Your task to perform on an android device: change timer sound Image 0: 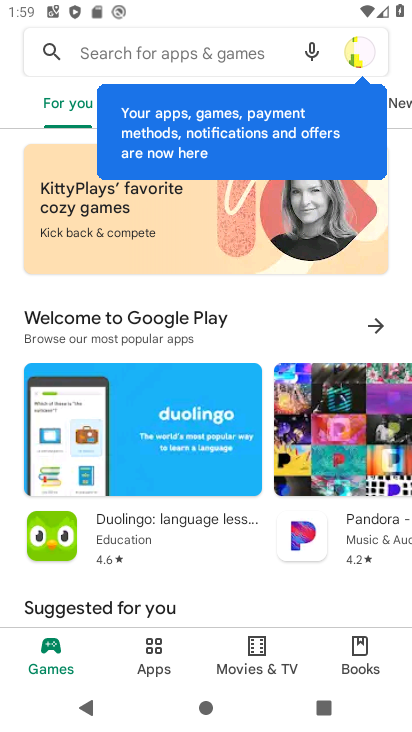
Step 0: press home button
Your task to perform on an android device: change timer sound Image 1: 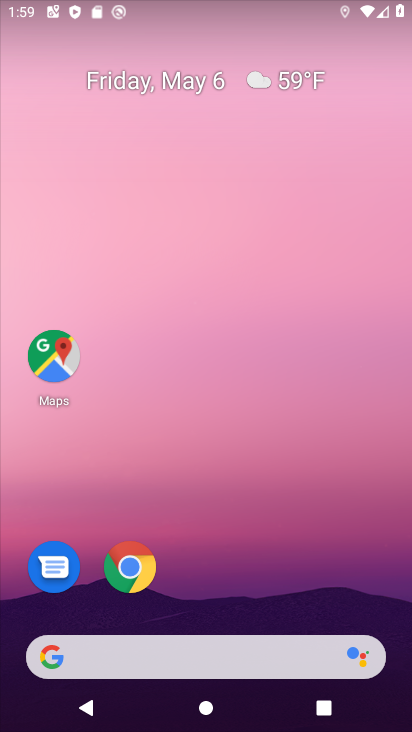
Step 1: drag from (383, 616) to (343, 78)
Your task to perform on an android device: change timer sound Image 2: 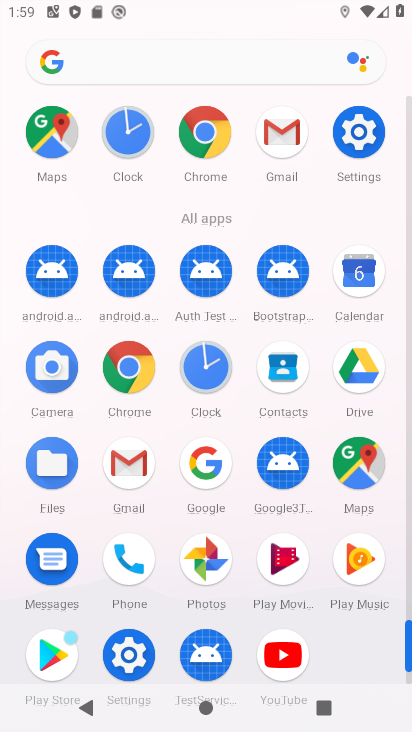
Step 2: click (202, 365)
Your task to perform on an android device: change timer sound Image 3: 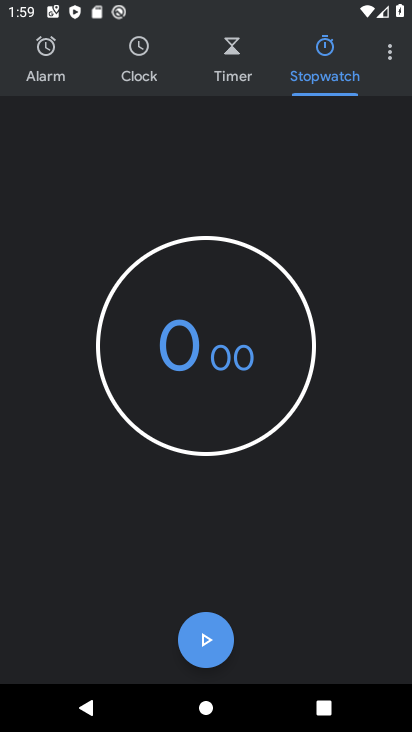
Step 3: click (393, 55)
Your task to perform on an android device: change timer sound Image 4: 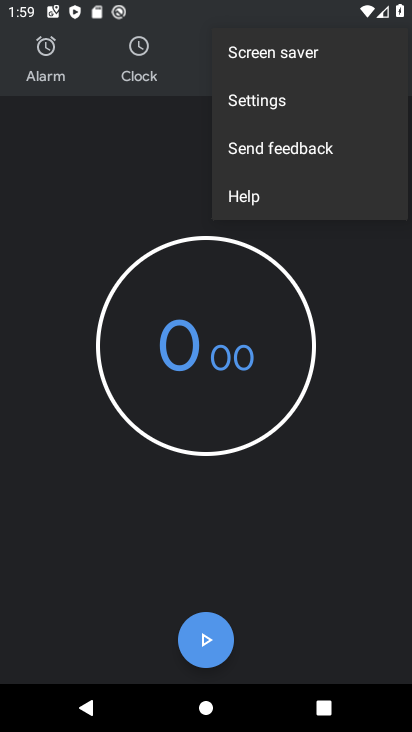
Step 4: click (268, 101)
Your task to perform on an android device: change timer sound Image 5: 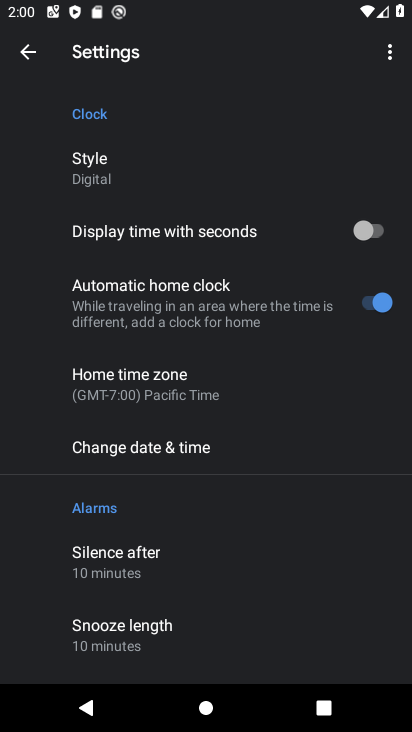
Step 5: drag from (215, 577) to (267, 173)
Your task to perform on an android device: change timer sound Image 6: 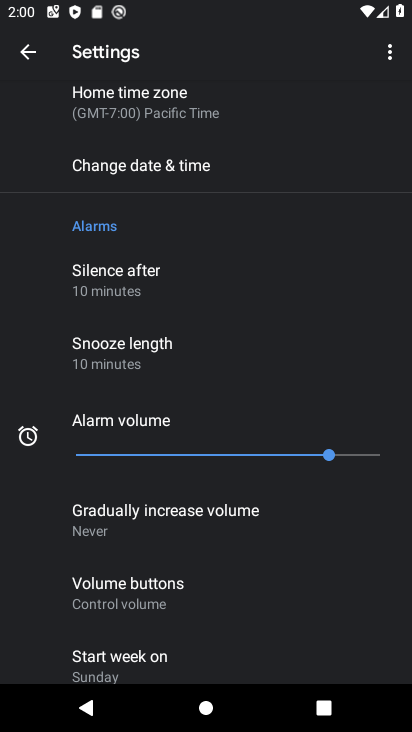
Step 6: drag from (285, 573) to (347, 103)
Your task to perform on an android device: change timer sound Image 7: 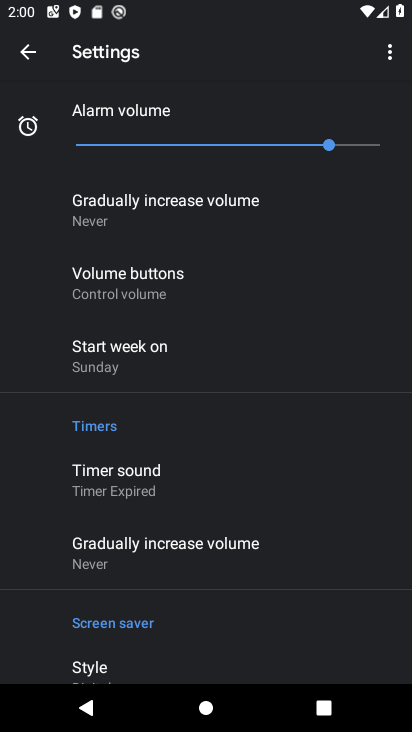
Step 7: click (107, 479)
Your task to perform on an android device: change timer sound Image 8: 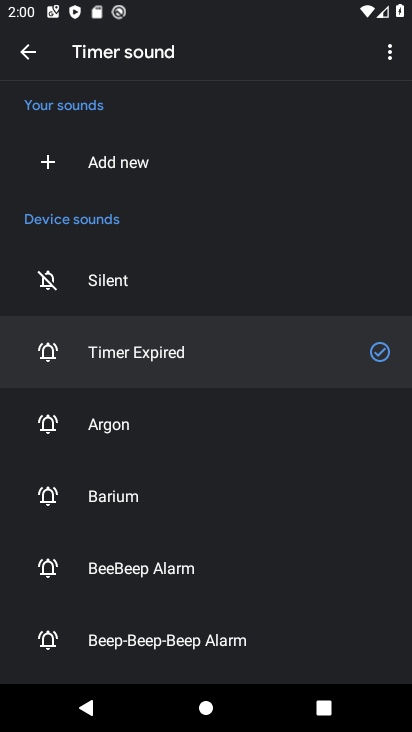
Step 8: click (117, 575)
Your task to perform on an android device: change timer sound Image 9: 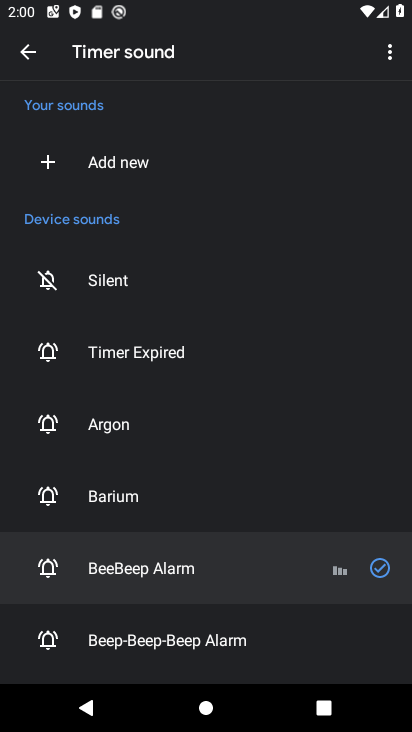
Step 9: task complete